Your task to perform on an android device: Turn on the flashlight Image 0: 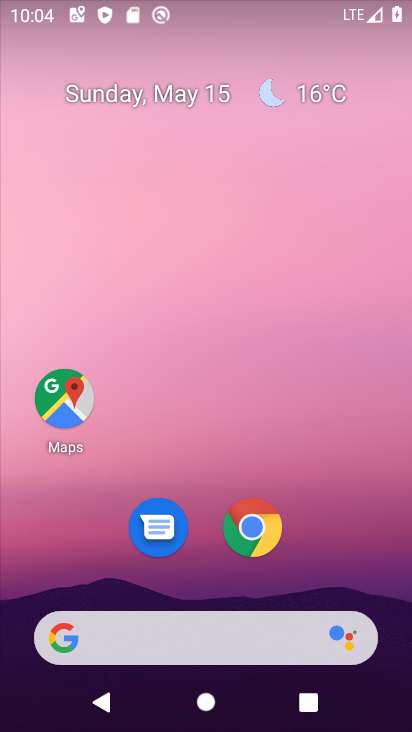
Step 0: drag from (148, 0) to (184, 530)
Your task to perform on an android device: Turn on the flashlight Image 1: 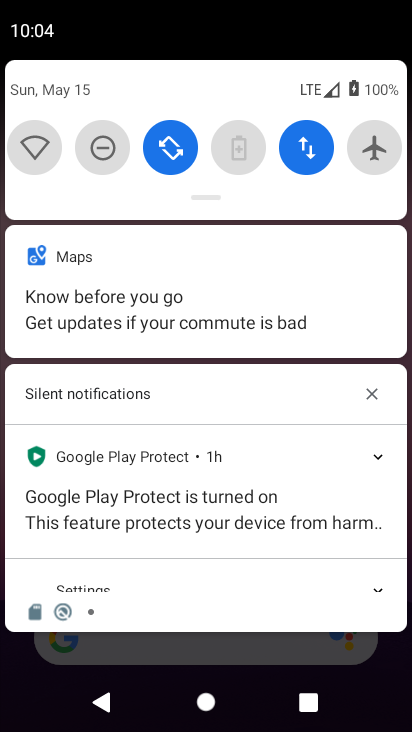
Step 1: task complete